Your task to perform on an android device: change keyboard looks Image 0: 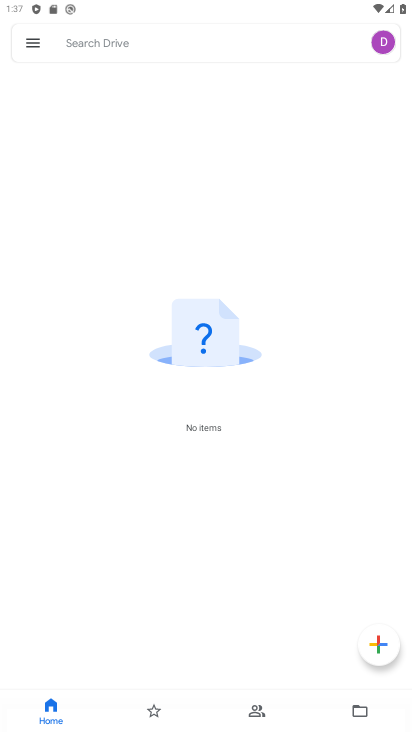
Step 0: press home button
Your task to perform on an android device: change keyboard looks Image 1: 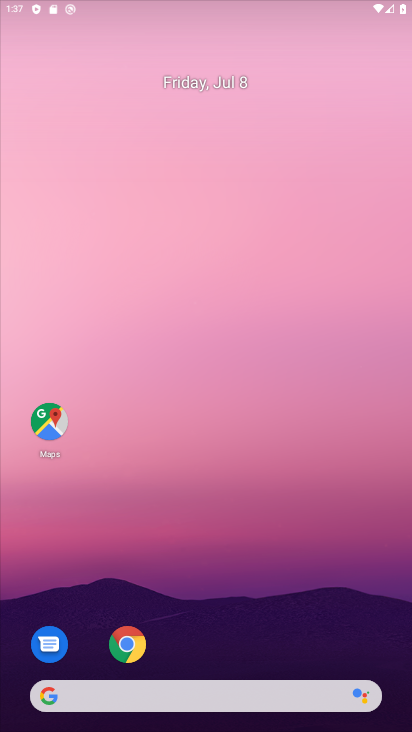
Step 1: drag from (190, 667) to (183, 158)
Your task to perform on an android device: change keyboard looks Image 2: 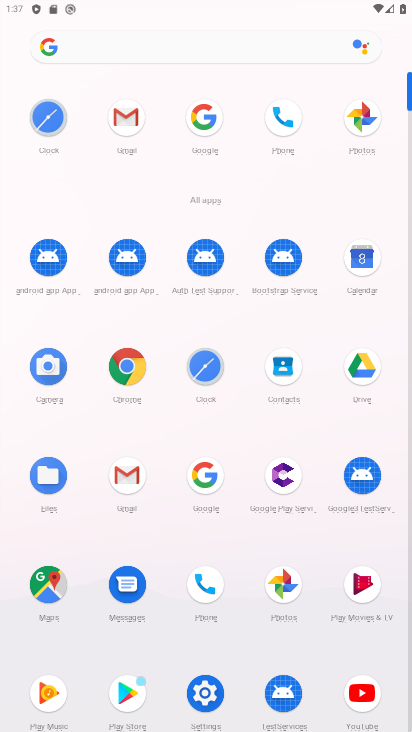
Step 2: click (208, 690)
Your task to perform on an android device: change keyboard looks Image 3: 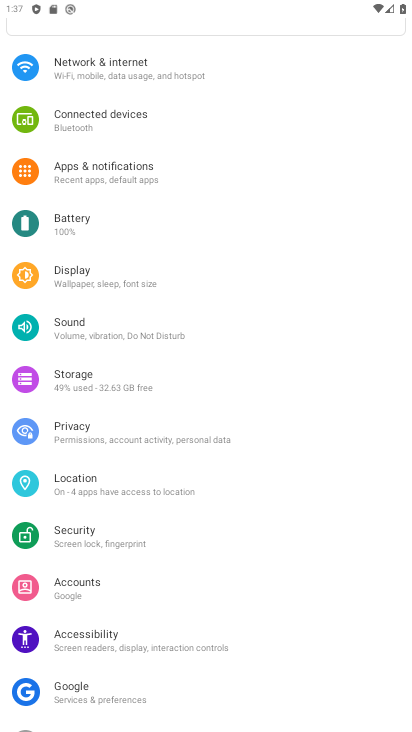
Step 3: drag from (102, 674) to (135, 311)
Your task to perform on an android device: change keyboard looks Image 4: 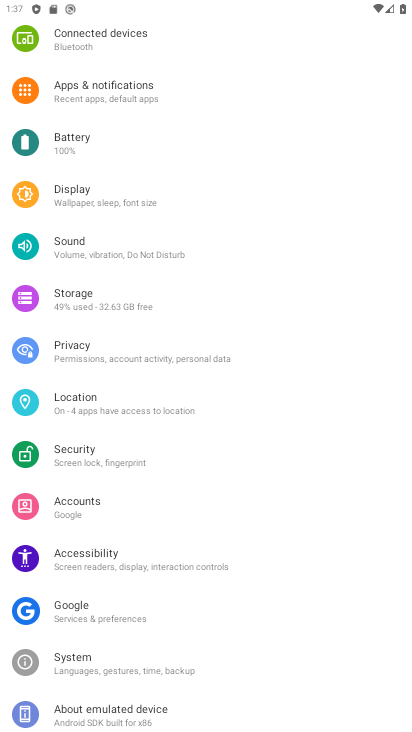
Step 4: click (82, 662)
Your task to perform on an android device: change keyboard looks Image 5: 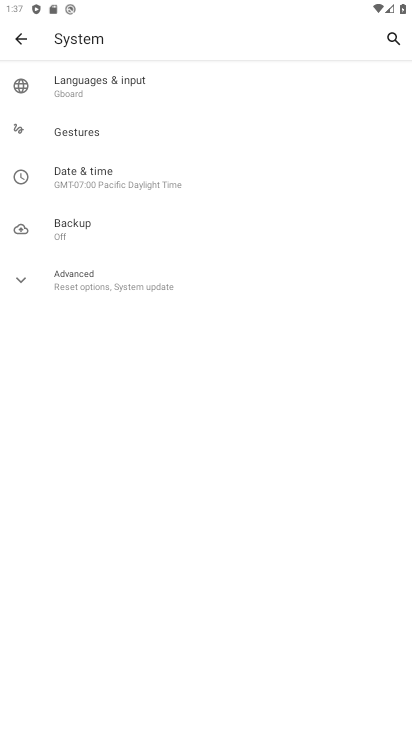
Step 5: click (57, 97)
Your task to perform on an android device: change keyboard looks Image 6: 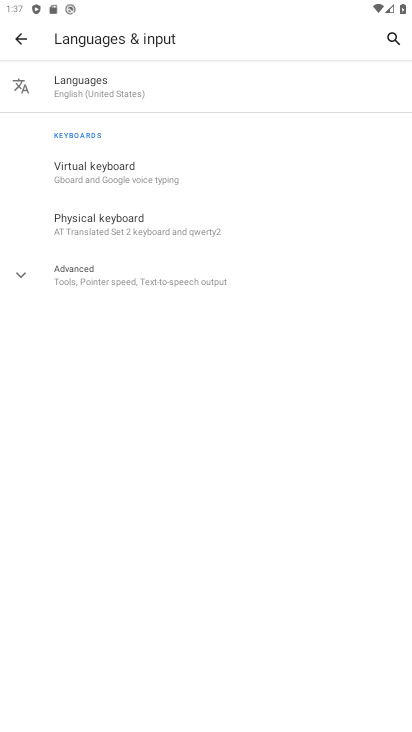
Step 6: click (82, 162)
Your task to perform on an android device: change keyboard looks Image 7: 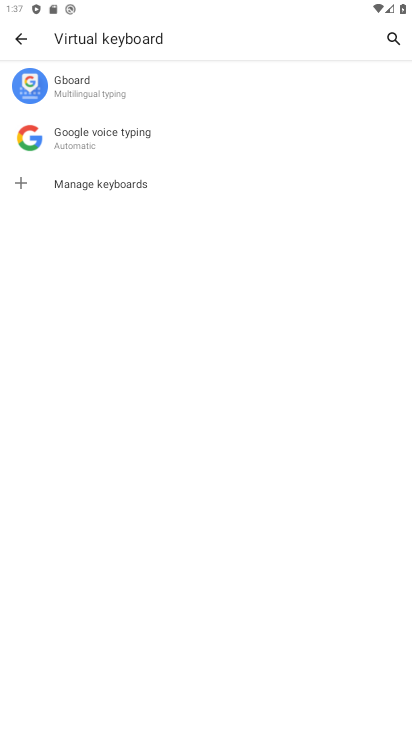
Step 7: click (70, 96)
Your task to perform on an android device: change keyboard looks Image 8: 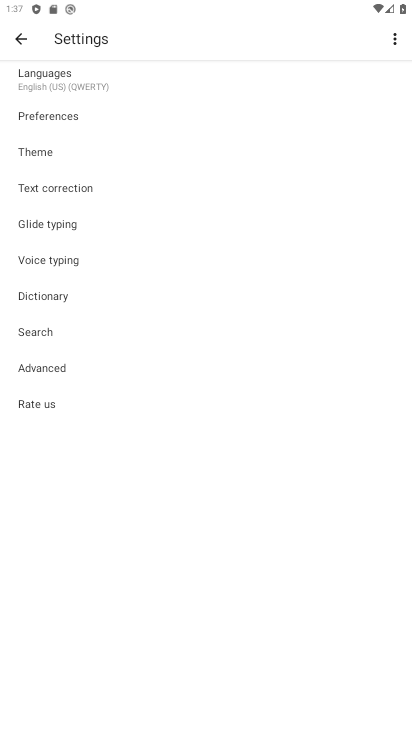
Step 8: click (56, 161)
Your task to perform on an android device: change keyboard looks Image 9: 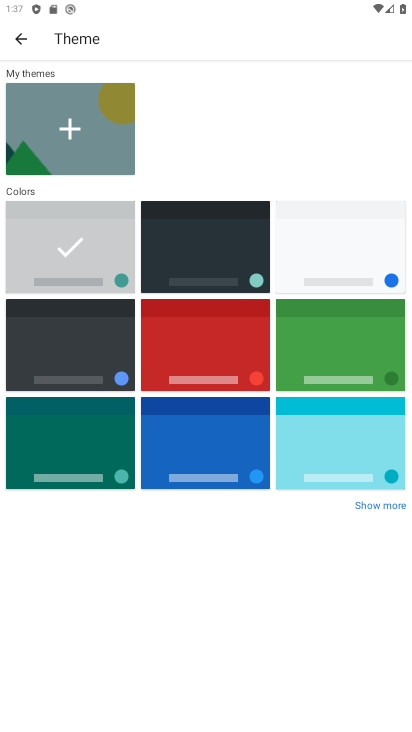
Step 9: click (199, 249)
Your task to perform on an android device: change keyboard looks Image 10: 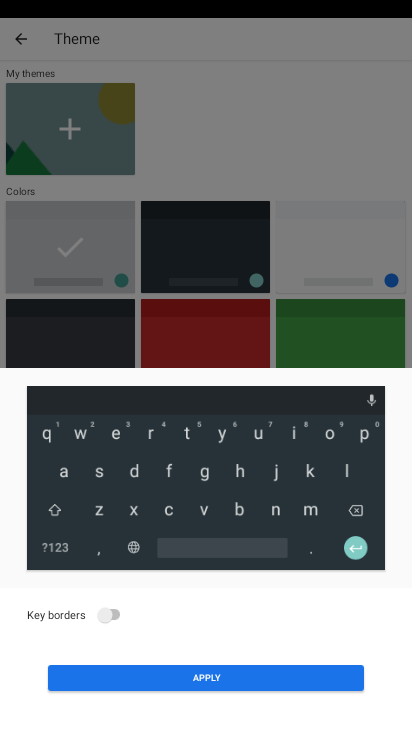
Step 10: click (208, 679)
Your task to perform on an android device: change keyboard looks Image 11: 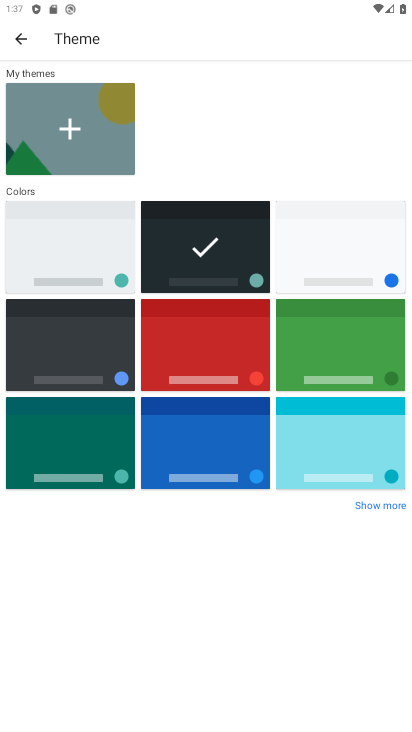
Step 11: task complete